Your task to perform on an android device: toggle javascript in the chrome app Image 0: 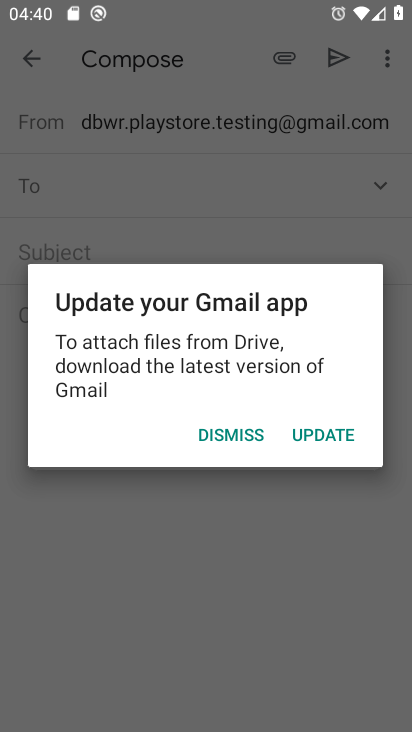
Step 0: drag from (245, 19) to (232, 586)
Your task to perform on an android device: toggle javascript in the chrome app Image 1: 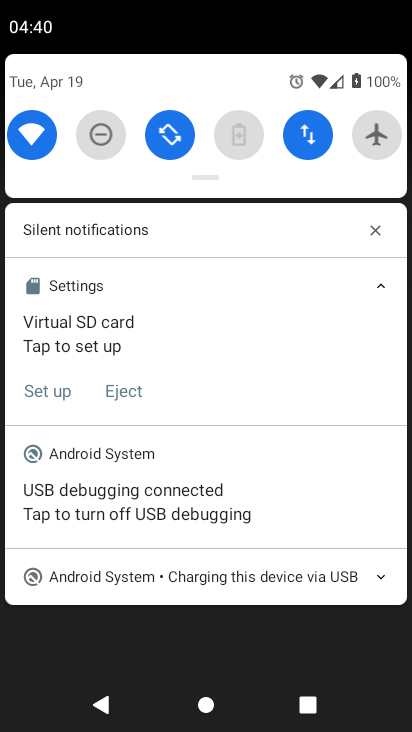
Step 1: drag from (225, 74) to (181, 660)
Your task to perform on an android device: toggle javascript in the chrome app Image 2: 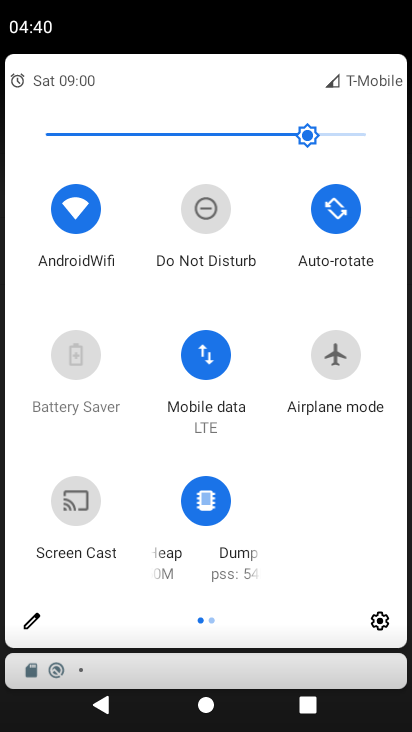
Step 2: press home button
Your task to perform on an android device: toggle javascript in the chrome app Image 3: 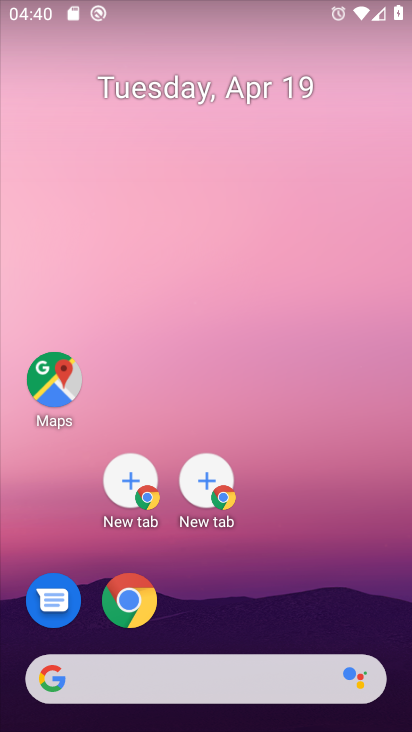
Step 3: click (142, 601)
Your task to perform on an android device: toggle javascript in the chrome app Image 4: 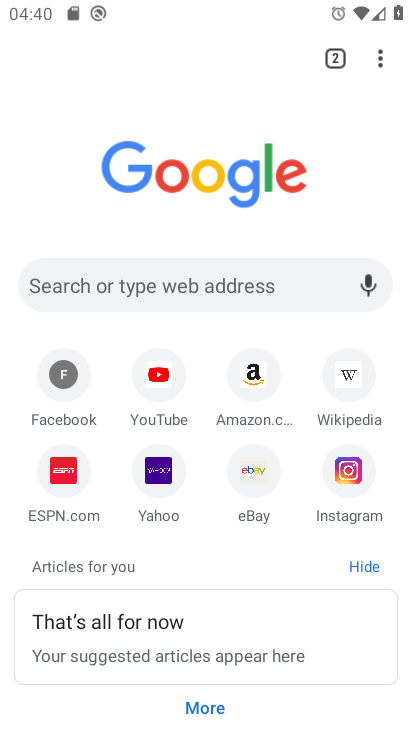
Step 4: click (383, 58)
Your task to perform on an android device: toggle javascript in the chrome app Image 5: 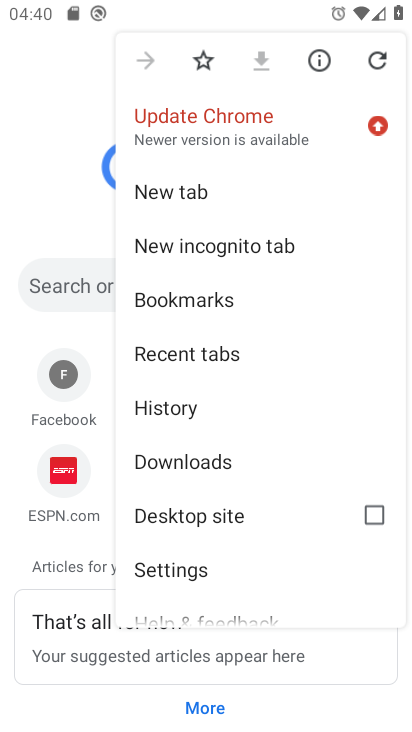
Step 5: click (179, 561)
Your task to perform on an android device: toggle javascript in the chrome app Image 6: 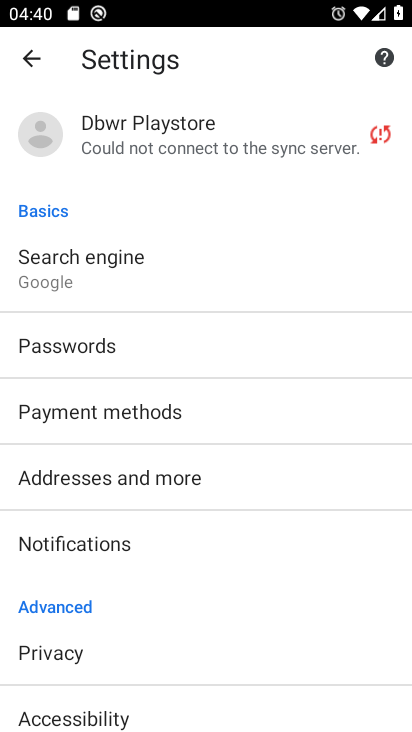
Step 6: drag from (107, 646) to (167, 216)
Your task to perform on an android device: toggle javascript in the chrome app Image 7: 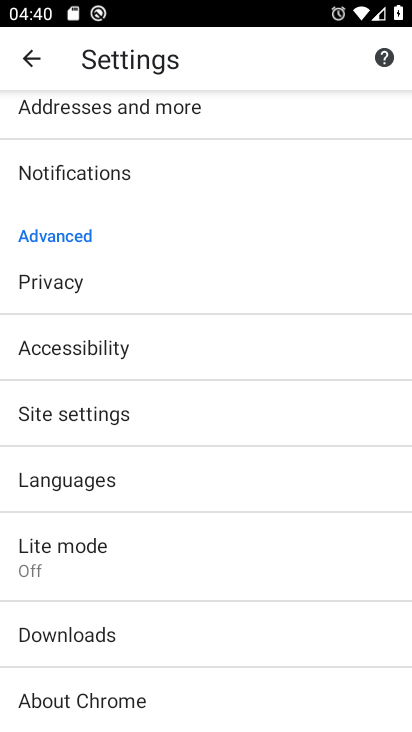
Step 7: drag from (68, 677) to (165, 257)
Your task to perform on an android device: toggle javascript in the chrome app Image 8: 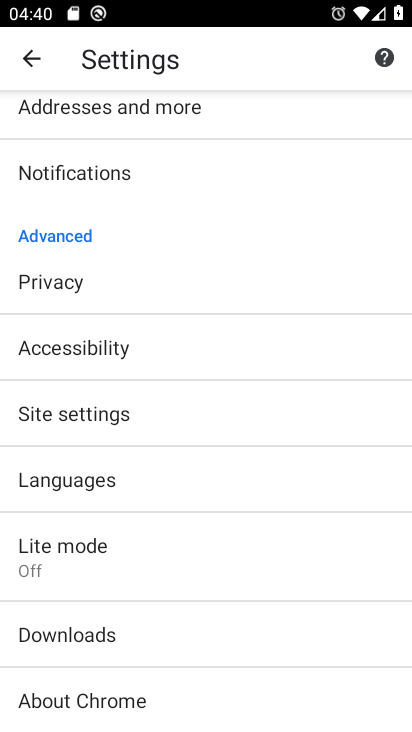
Step 8: click (80, 415)
Your task to perform on an android device: toggle javascript in the chrome app Image 9: 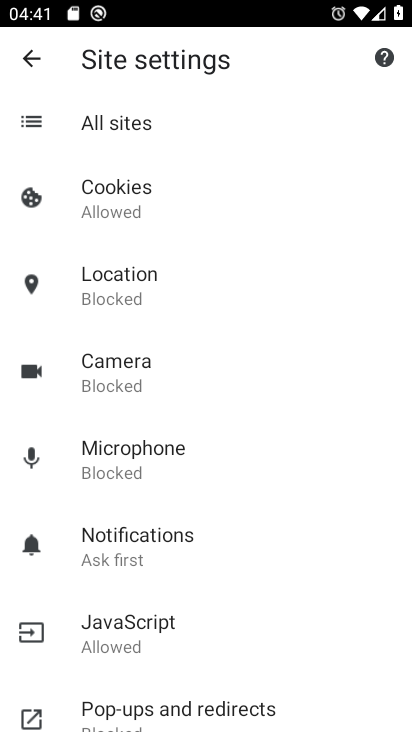
Step 9: click (144, 640)
Your task to perform on an android device: toggle javascript in the chrome app Image 10: 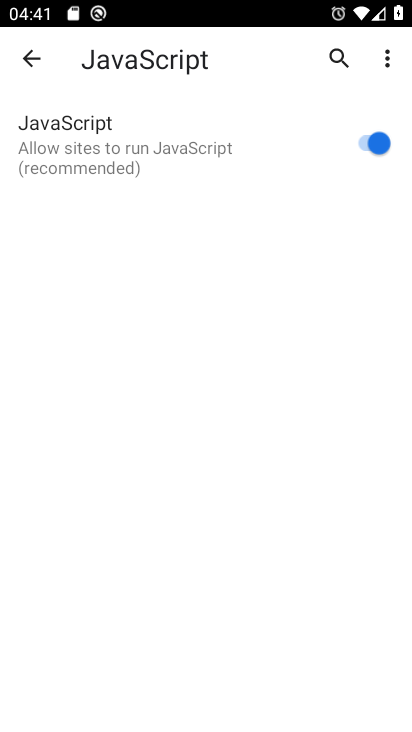
Step 10: click (375, 144)
Your task to perform on an android device: toggle javascript in the chrome app Image 11: 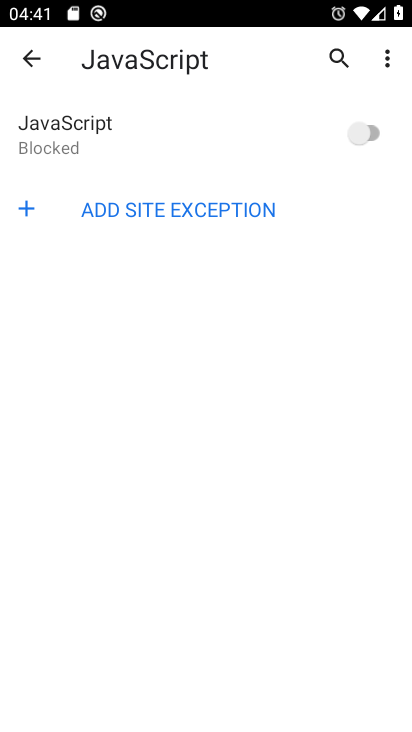
Step 11: click (375, 144)
Your task to perform on an android device: toggle javascript in the chrome app Image 12: 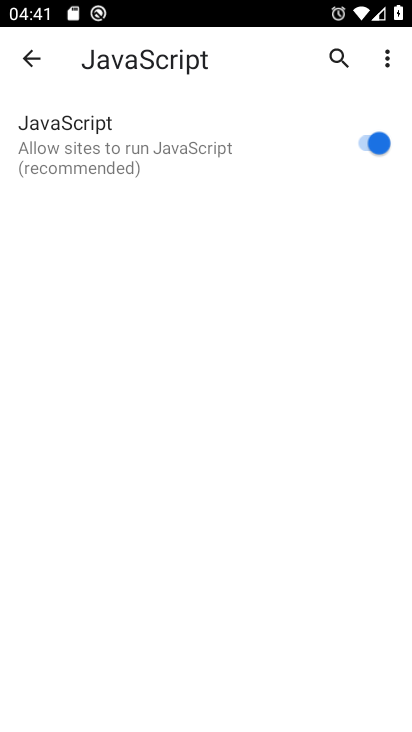
Step 12: task complete